Your task to perform on an android device: turn off smart reply in the gmail app Image 0: 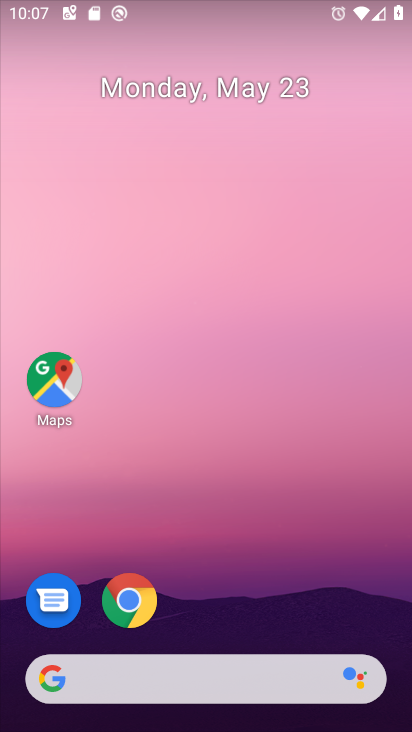
Step 0: drag from (212, 725) to (217, 232)
Your task to perform on an android device: turn off smart reply in the gmail app Image 1: 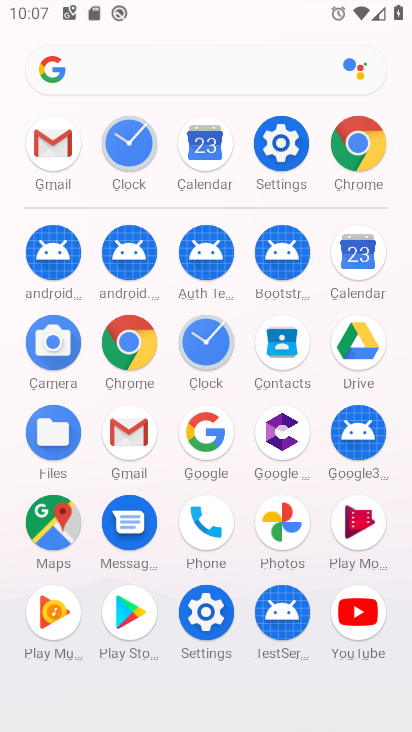
Step 1: click (124, 429)
Your task to perform on an android device: turn off smart reply in the gmail app Image 2: 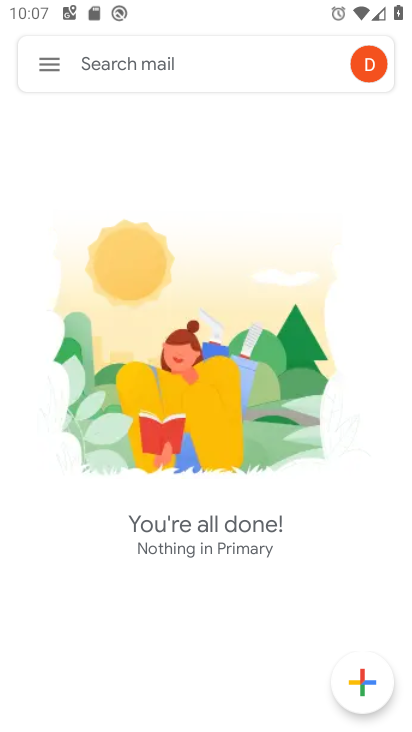
Step 2: click (45, 63)
Your task to perform on an android device: turn off smart reply in the gmail app Image 3: 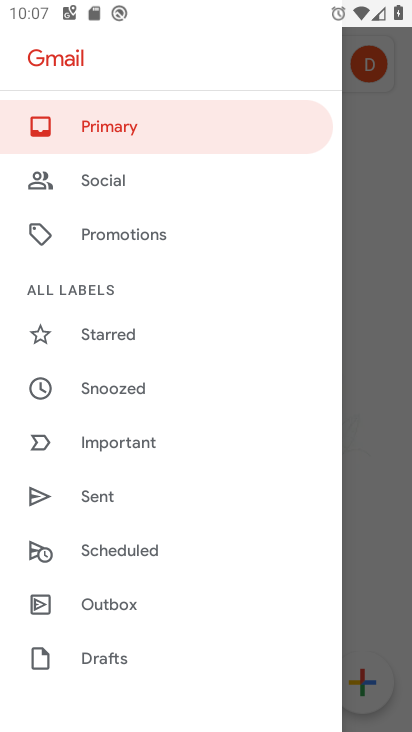
Step 3: drag from (134, 580) to (137, 303)
Your task to perform on an android device: turn off smart reply in the gmail app Image 4: 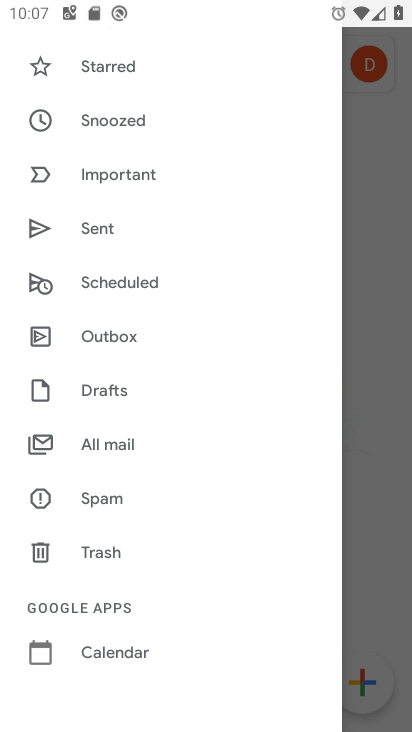
Step 4: drag from (110, 615) to (115, 249)
Your task to perform on an android device: turn off smart reply in the gmail app Image 5: 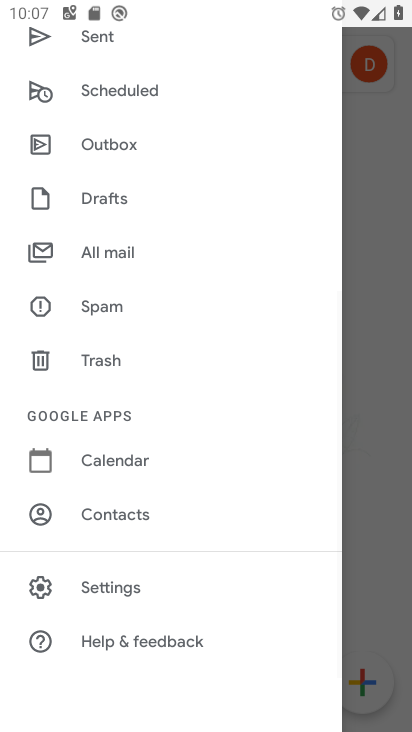
Step 5: click (115, 579)
Your task to perform on an android device: turn off smart reply in the gmail app Image 6: 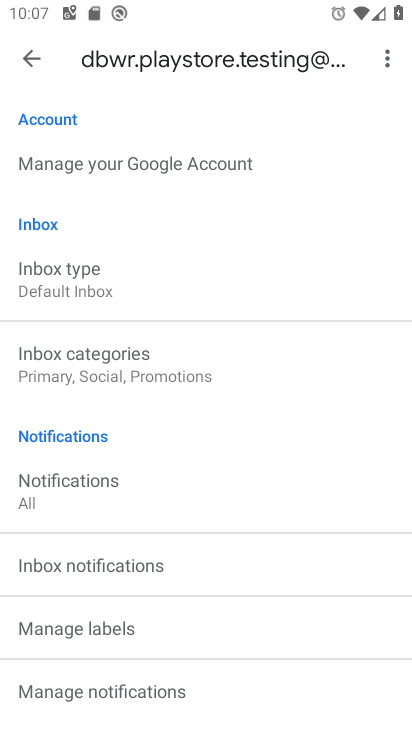
Step 6: drag from (143, 647) to (146, 211)
Your task to perform on an android device: turn off smart reply in the gmail app Image 7: 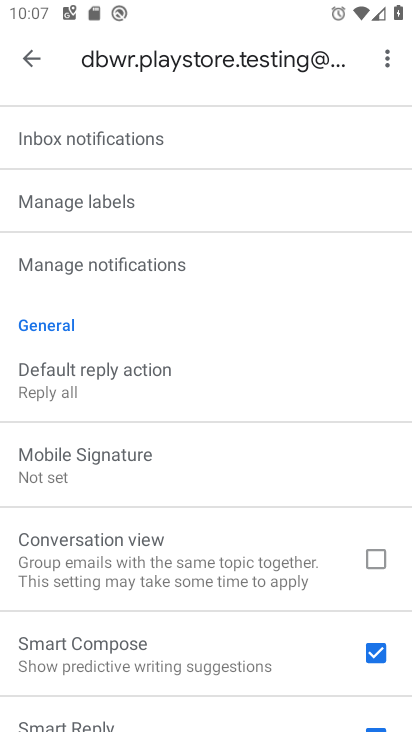
Step 7: drag from (196, 671) to (198, 318)
Your task to perform on an android device: turn off smart reply in the gmail app Image 8: 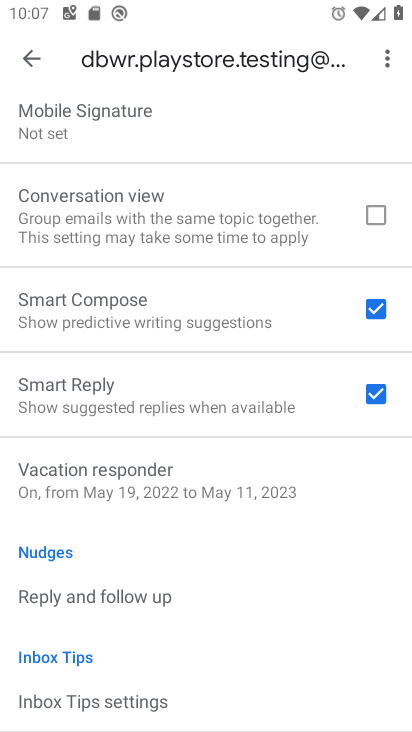
Step 8: click (377, 395)
Your task to perform on an android device: turn off smart reply in the gmail app Image 9: 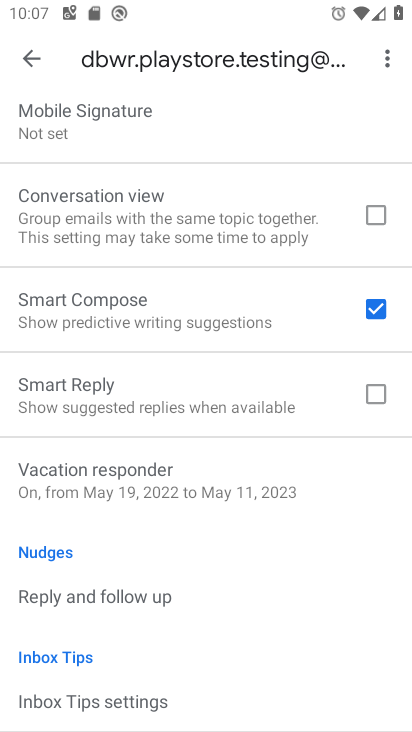
Step 9: task complete